Your task to perform on an android device: Show the shopping cart on bestbuy. Image 0: 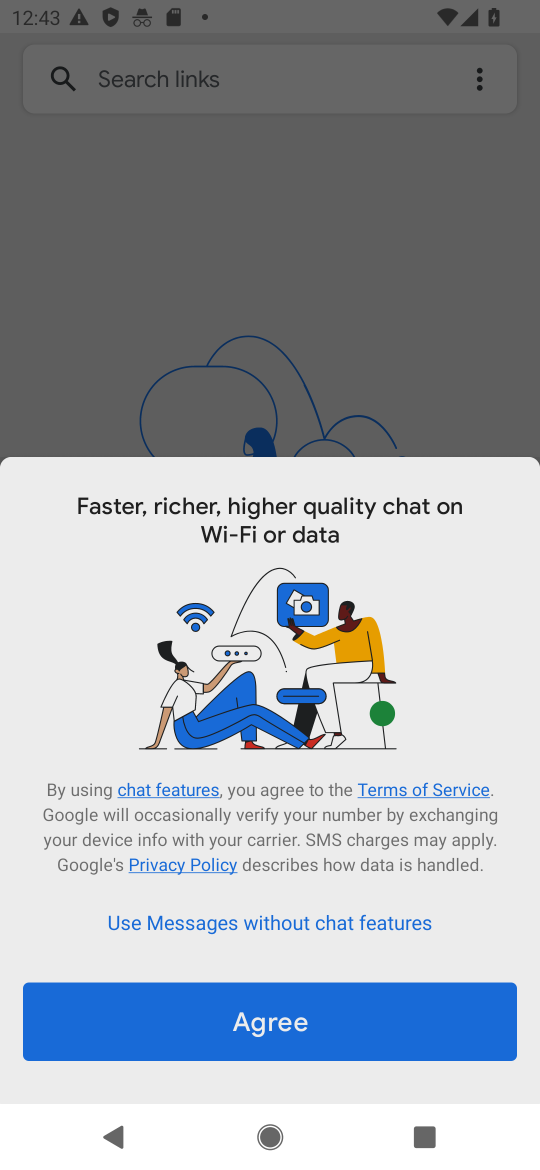
Step 0: press home button
Your task to perform on an android device: Show the shopping cart on bestbuy. Image 1: 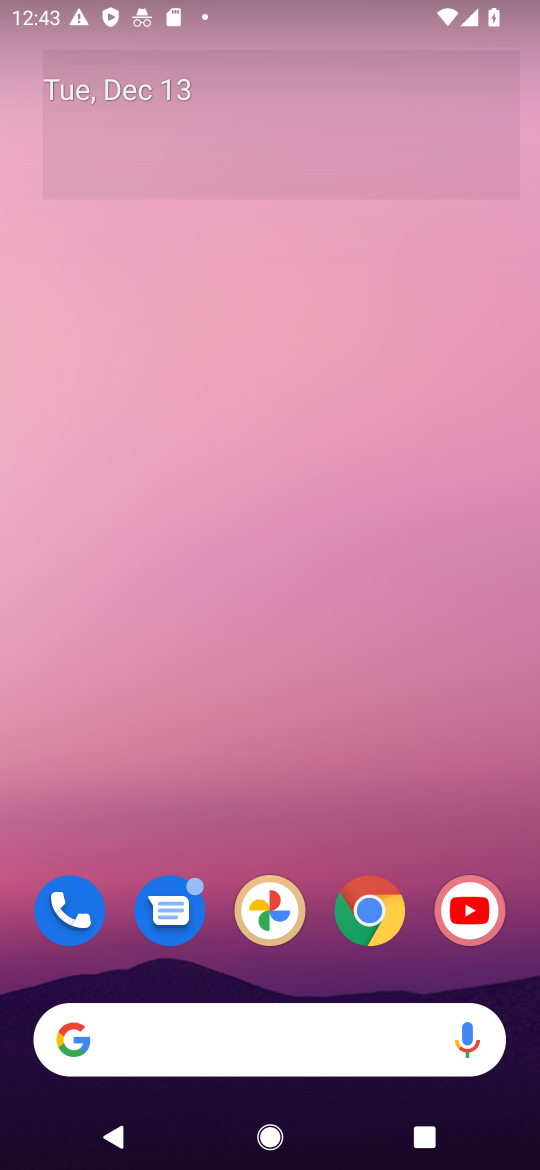
Step 1: click (373, 905)
Your task to perform on an android device: Show the shopping cart on bestbuy. Image 2: 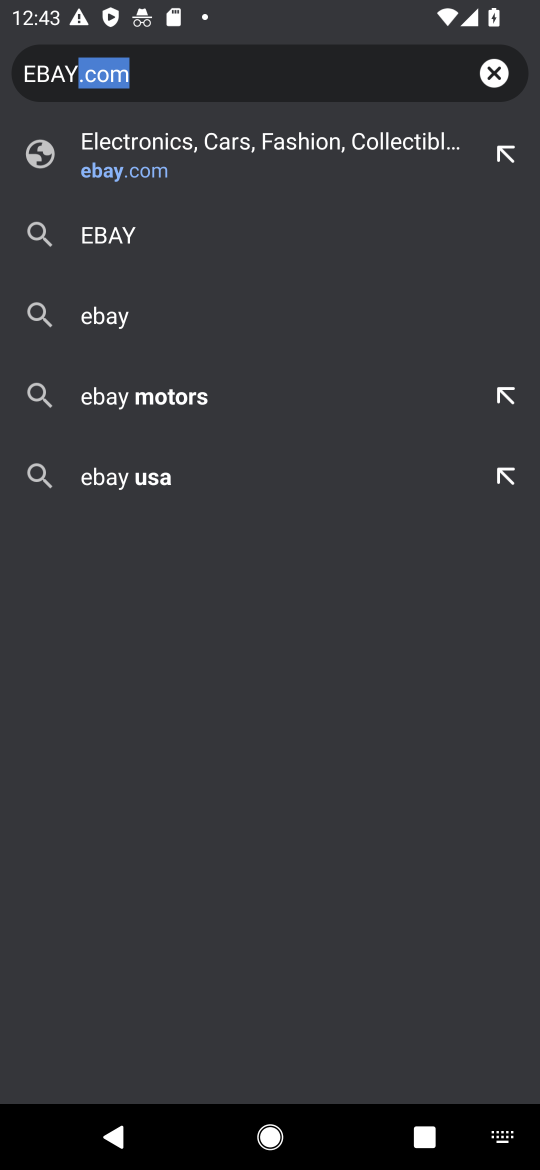
Step 2: click (491, 79)
Your task to perform on an android device: Show the shopping cart on bestbuy. Image 3: 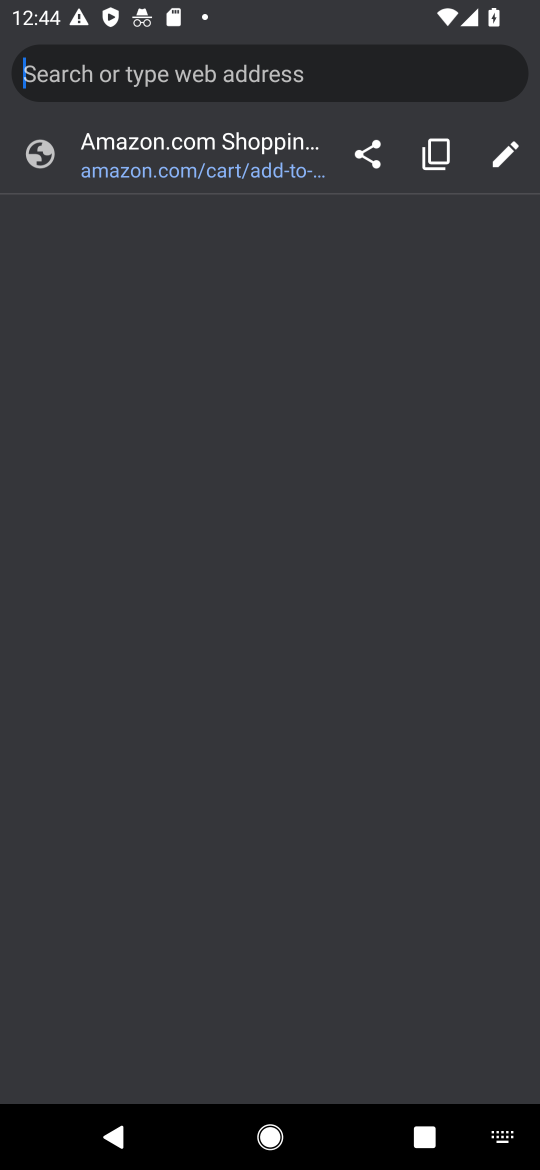
Step 3: type "BESTBUY"
Your task to perform on an android device: Show the shopping cart on bestbuy. Image 4: 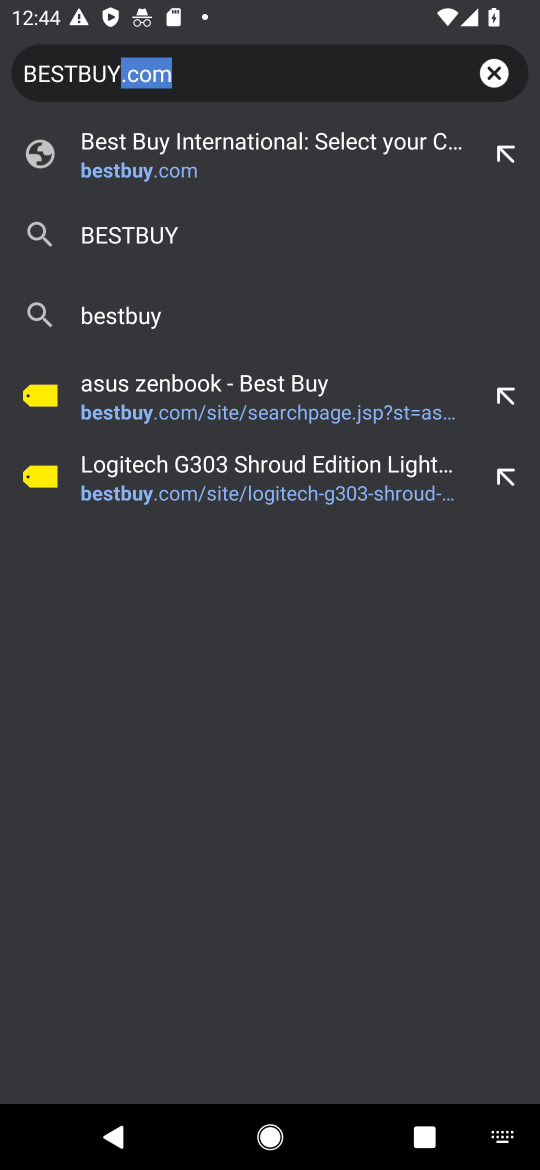
Step 4: click (135, 143)
Your task to perform on an android device: Show the shopping cart on bestbuy. Image 5: 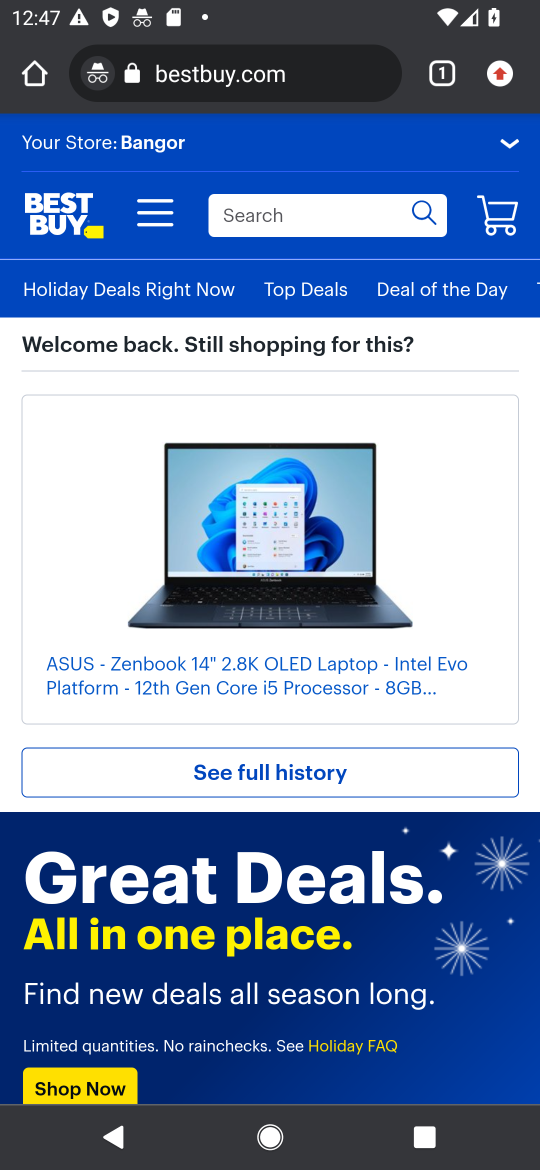
Step 5: task complete